Your task to perform on an android device: Open Google Maps and go to "Timeline" Image 0: 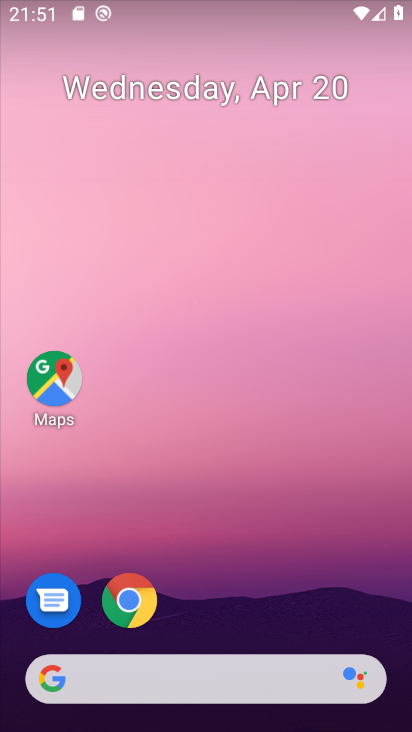
Step 0: click (67, 381)
Your task to perform on an android device: Open Google Maps and go to "Timeline" Image 1: 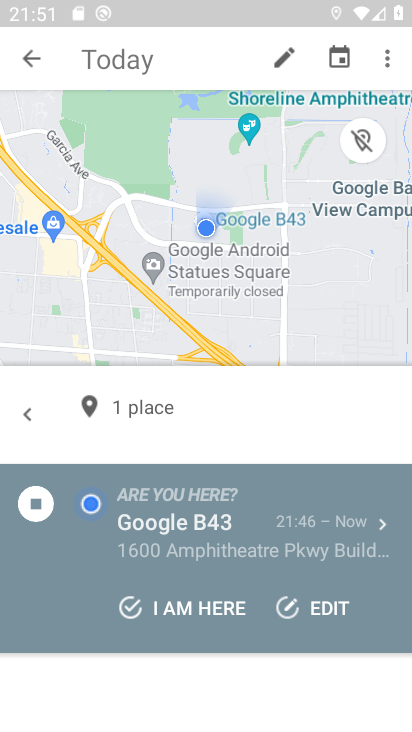
Step 1: task complete